Your task to perform on an android device: turn pop-ups on in chrome Image 0: 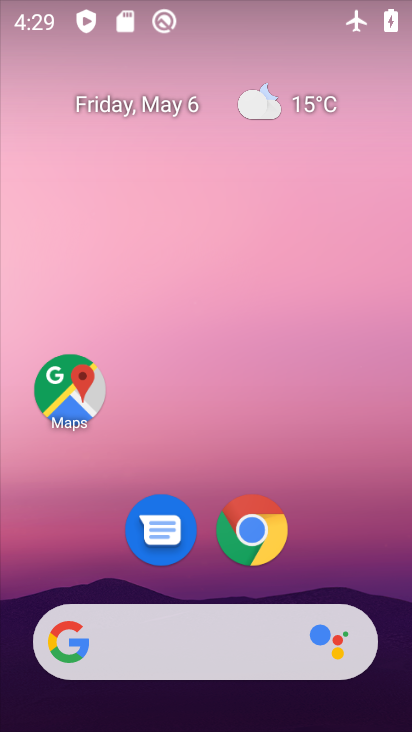
Step 0: drag from (388, 478) to (401, 5)
Your task to perform on an android device: turn pop-ups on in chrome Image 1: 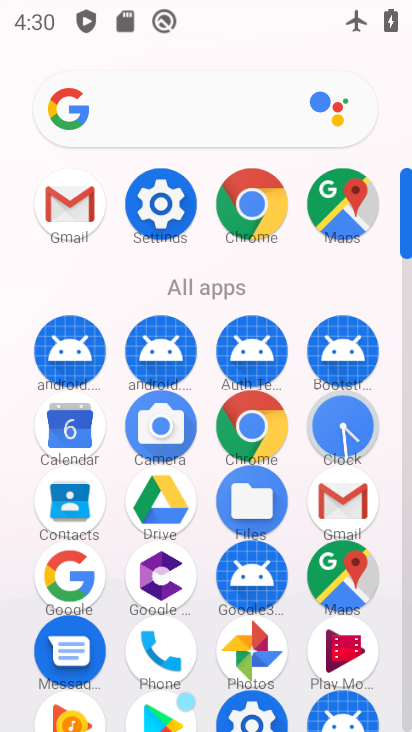
Step 1: click (247, 217)
Your task to perform on an android device: turn pop-ups on in chrome Image 2: 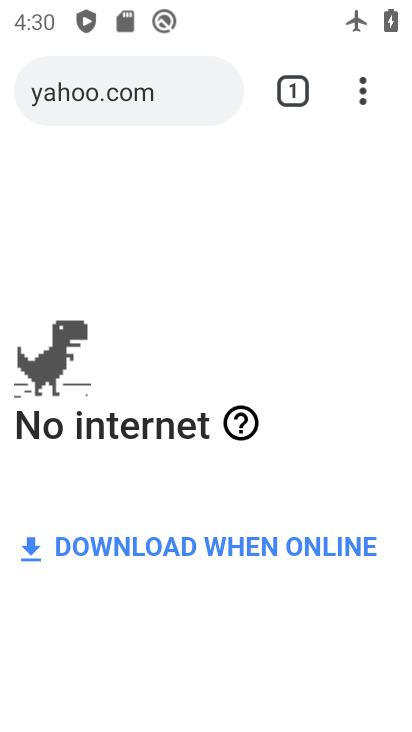
Step 2: drag from (361, 105) to (144, 559)
Your task to perform on an android device: turn pop-ups on in chrome Image 3: 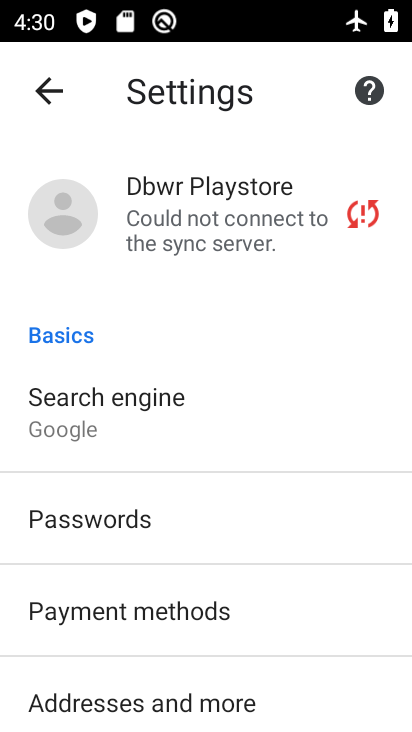
Step 3: drag from (268, 592) to (263, 238)
Your task to perform on an android device: turn pop-ups on in chrome Image 4: 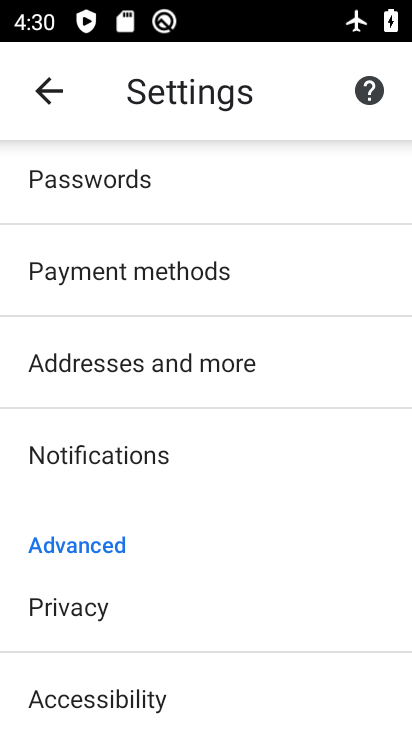
Step 4: drag from (210, 635) to (267, 231)
Your task to perform on an android device: turn pop-ups on in chrome Image 5: 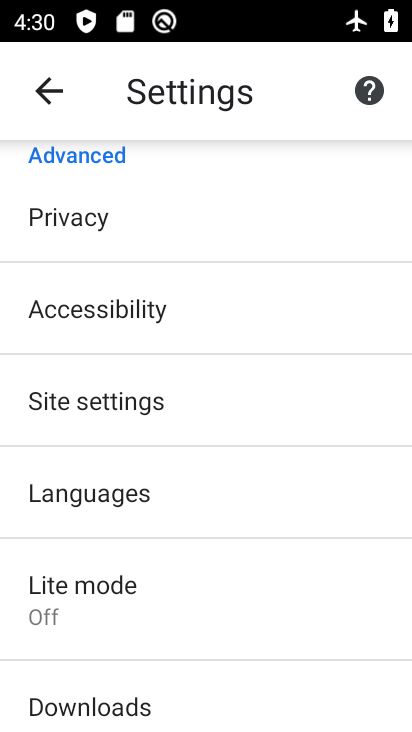
Step 5: click (100, 394)
Your task to perform on an android device: turn pop-ups on in chrome Image 6: 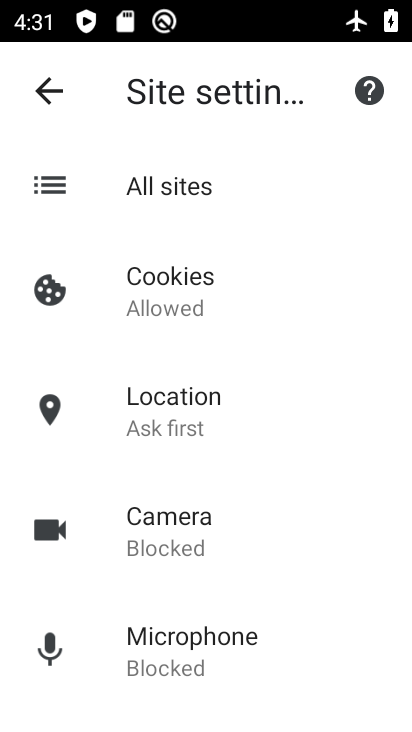
Step 6: drag from (212, 602) to (260, 165)
Your task to perform on an android device: turn pop-ups on in chrome Image 7: 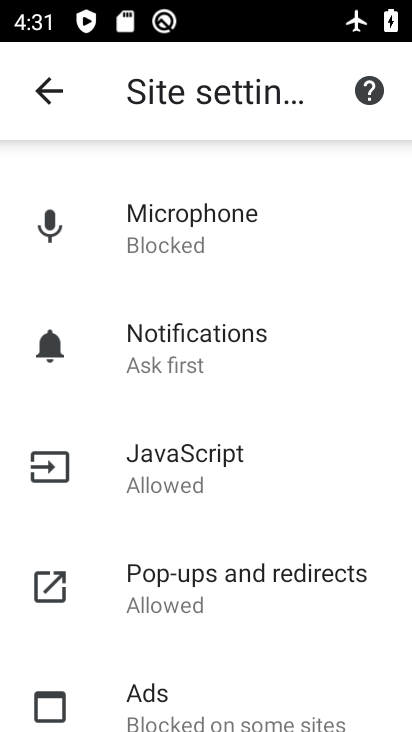
Step 7: click (192, 589)
Your task to perform on an android device: turn pop-ups on in chrome Image 8: 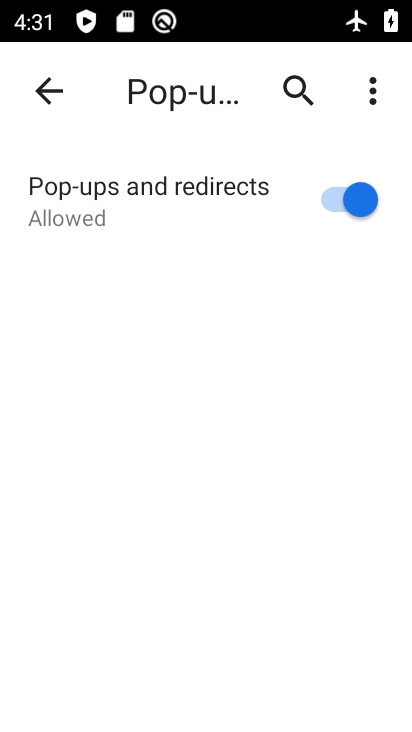
Step 8: task complete